Your task to perform on an android device: Show me recent news Image 0: 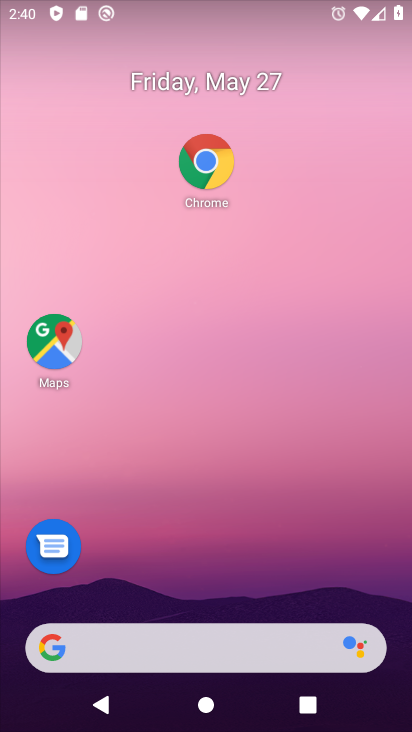
Step 0: drag from (115, 412) to (146, 205)
Your task to perform on an android device: Show me recent news Image 1: 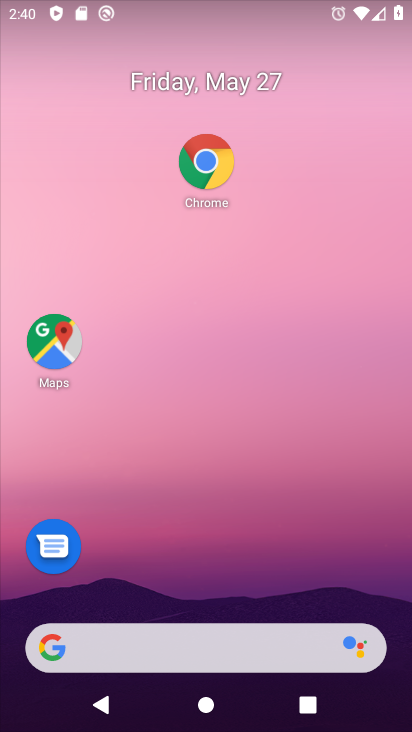
Step 1: drag from (153, 582) to (317, 158)
Your task to perform on an android device: Show me recent news Image 2: 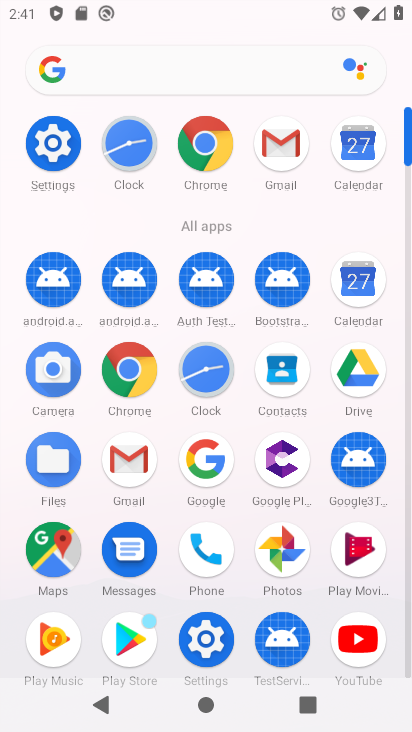
Step 2: click (213, 138)
Your task to perform on an android device: Show me recent news Image 3: 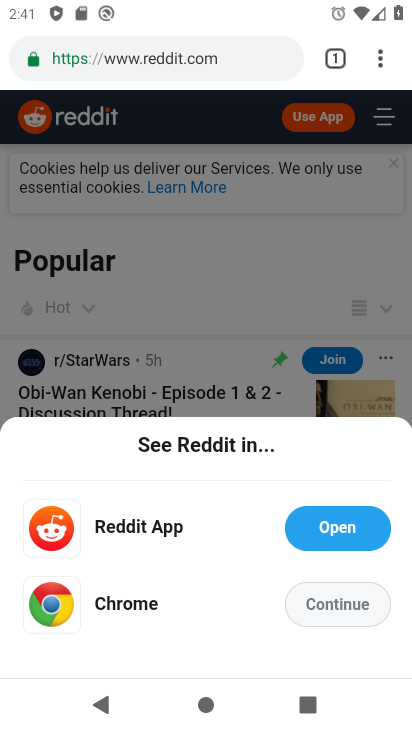
Step 3: click (123, 62)
Your task to perform on an android device: Show me recent news Image 4: 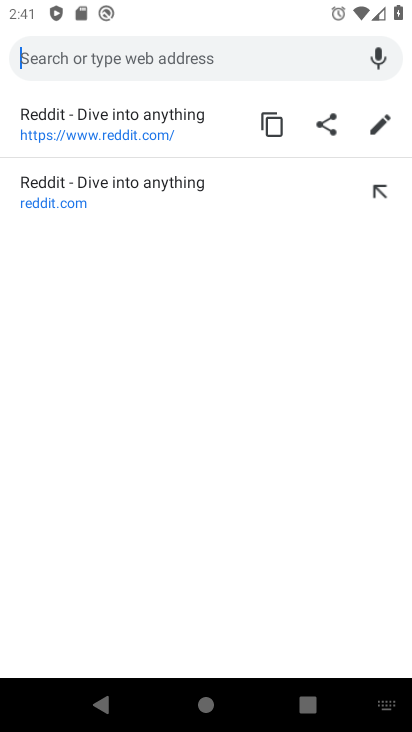
Step 4: type "recent news"
Your task to perform on an android device: Show me recent news Image 5: 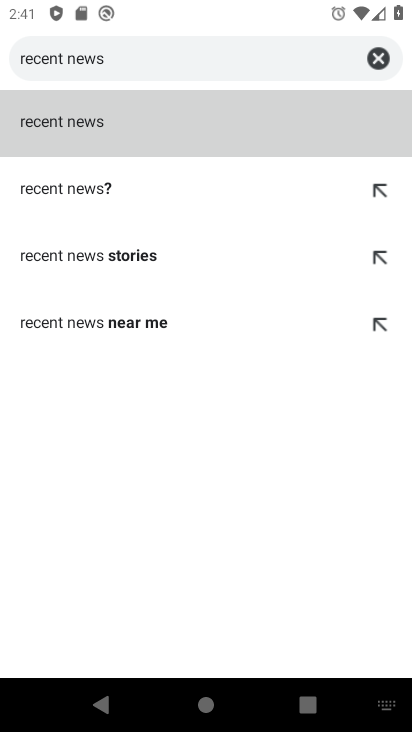
Step 5: click (100, 111)
Your task to perform on an android device: Show me recent news Image 6: 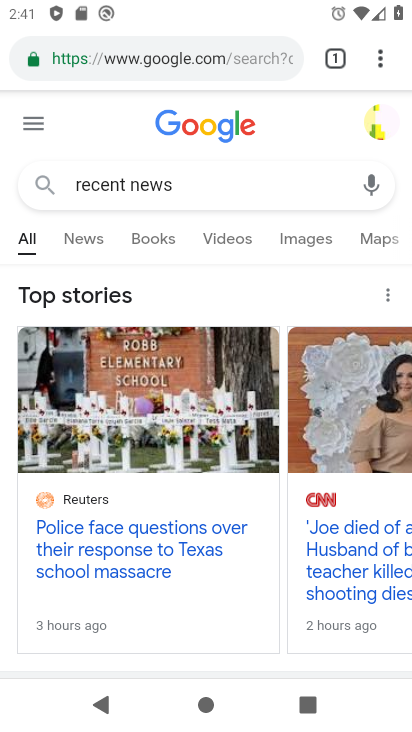
Step 6: task complete